Your task to perform on an android device: set an alarm Image 0: 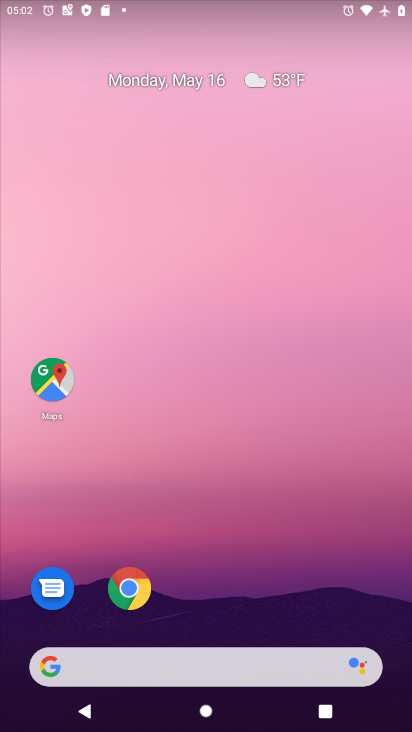
Step 0: drag from (218, 552) to (189, 36)
Your task to perform on an android device: set an alarm Image 1: 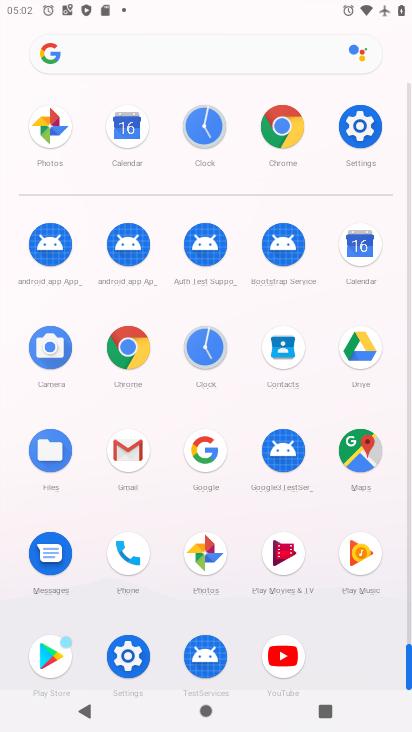
Step 1: drag from (15, 509) to (8, 233)
Your task to perform on an android device: set an alarm Image 2: 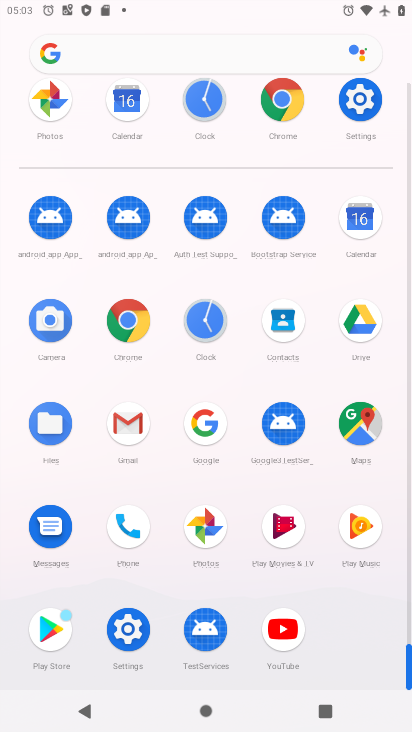
Step 2: click (205, 315)
Your task to perform on an android device: set an alarm Image 3: 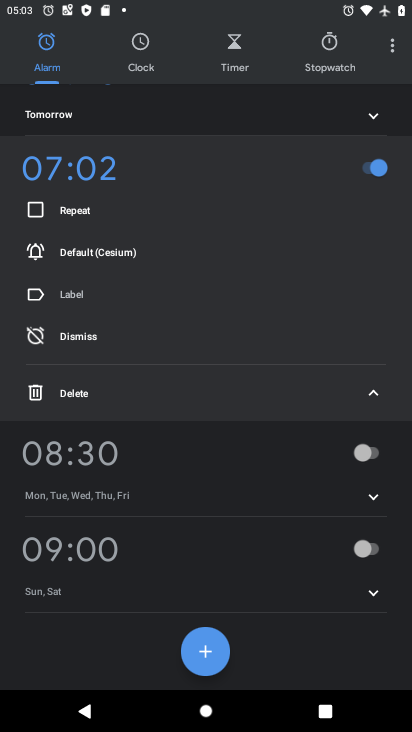
Step 3: click (195, 649)
Your task to perform on an android device: set an alarm Image 4: 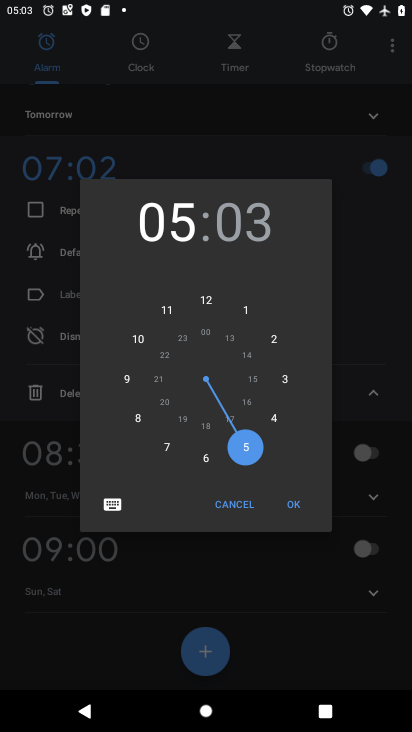
Step 4: click (298, 507)
Your task to perform on an android device: set an alarm Image 5: 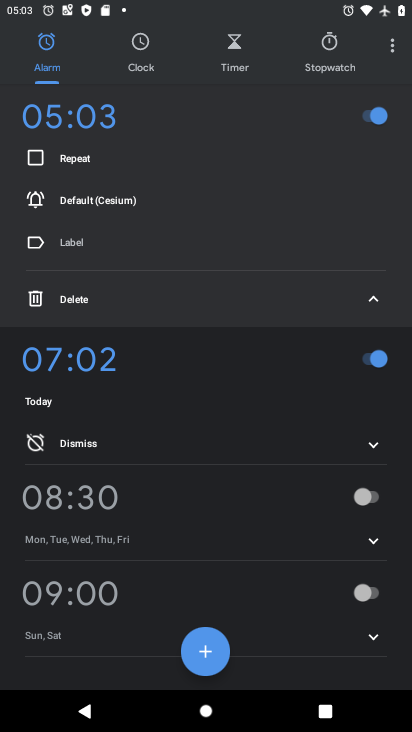
Step 5: task complete